Your task to perform on an android device: turn on sleep mode Image 0: 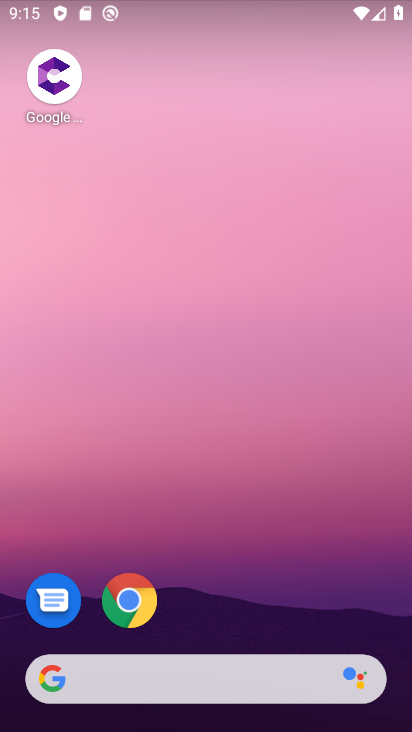
Step 0: drag from (397, 688) to (365, 307)
Your task to perform on an android device: turn on sleep mode Image 1: 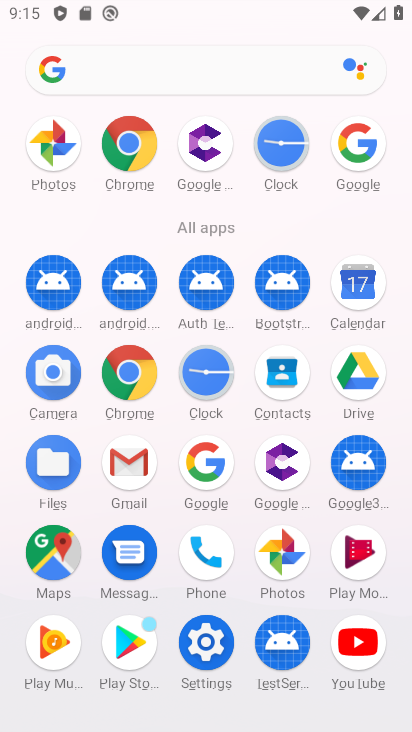
Step 1: click (205, 650)
Your task to perform on an android device: turn on sleep mode Image 2: 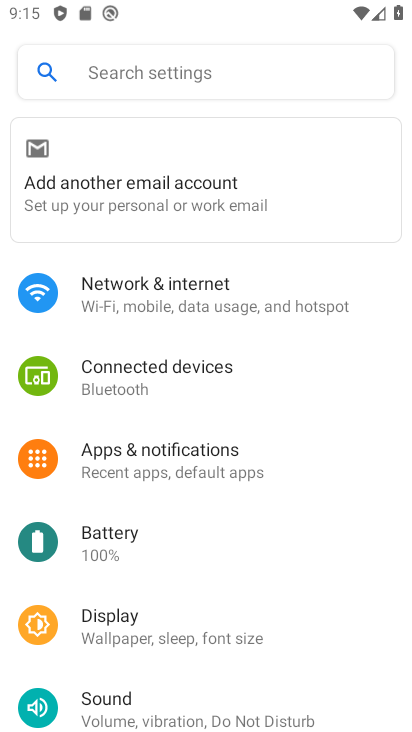
Step 2: drag from (361, 673) to (390, 405)
Your task to perform on an android device: turn on sleep mode Image 3: 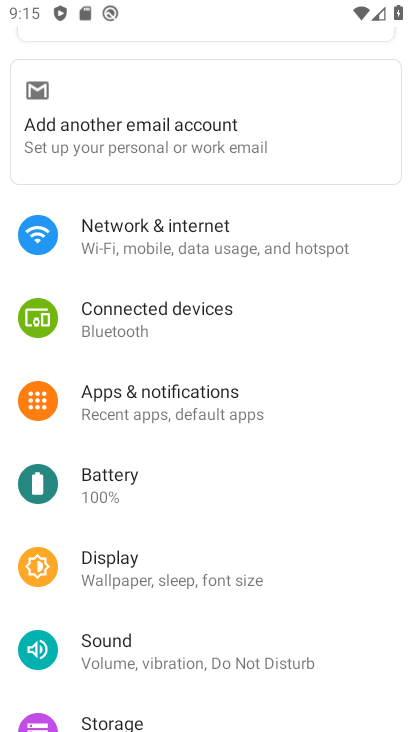
Step 3: click (358, 694)
Your task to perform on an android device: turn on sleep mode Image 4: 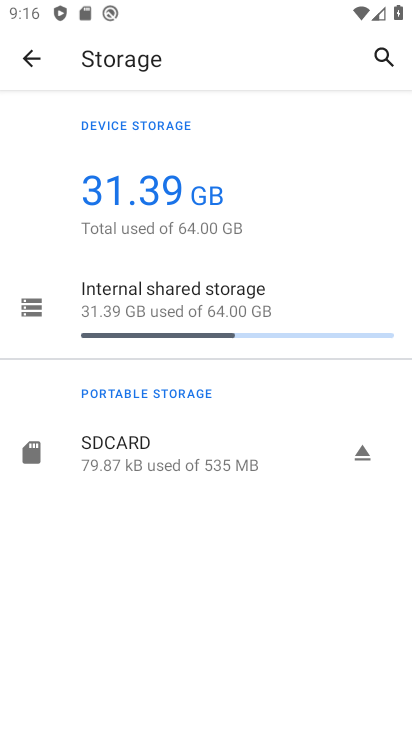
Step 4: click (28, 54)
Your task to perform on an android device: turn on sleep mode Image 5: 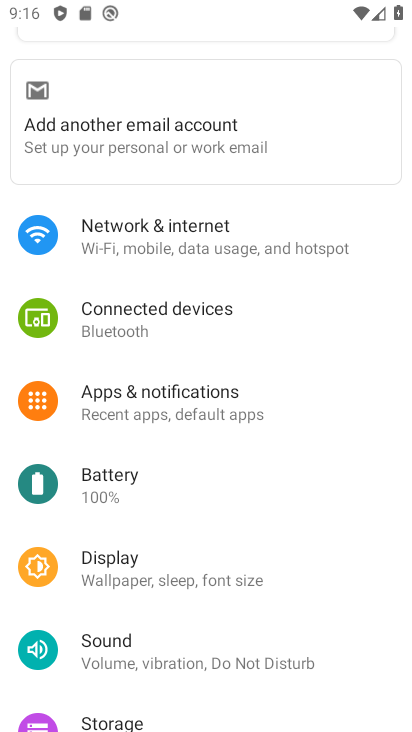
Step 5: drag from (358, 686) to (391, 277)
Your task to perform on an android device: turn on sleep mode Image 6: 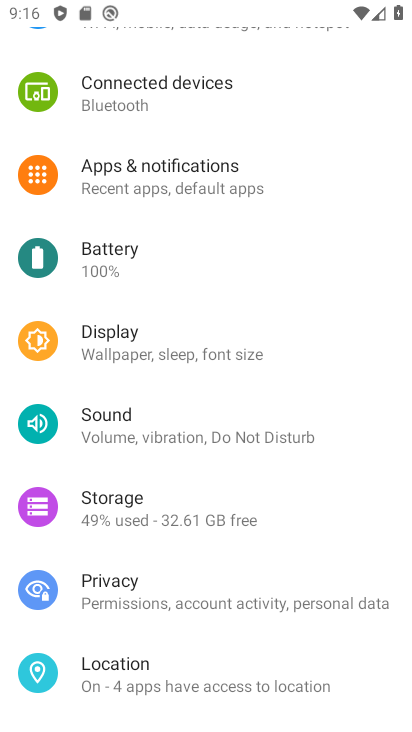
Step 6: drag from (367, 674) to (354, 383)
Your task to perform on an android device: turn on sleep mode Image 7: 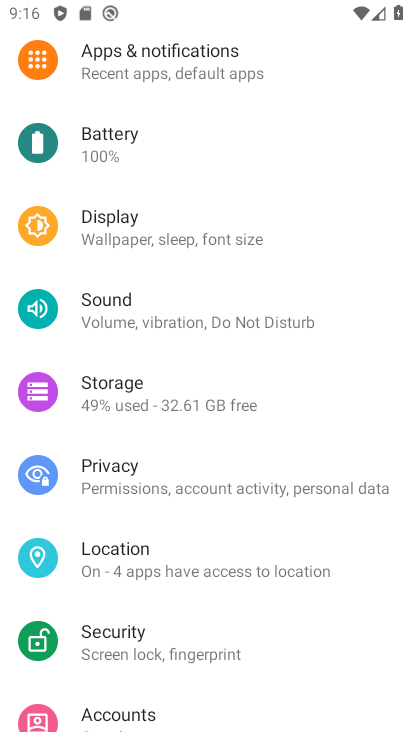
Step 7: click (126, 231)
Your task to perform on an android device: turn on sleep mode Image 8: 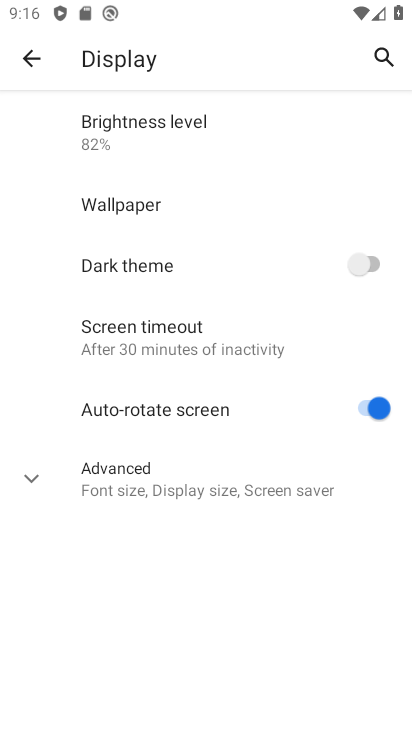
Step 8: click (168, 337)
Your task to perform on an android device: turn on sleep mode Image 9: 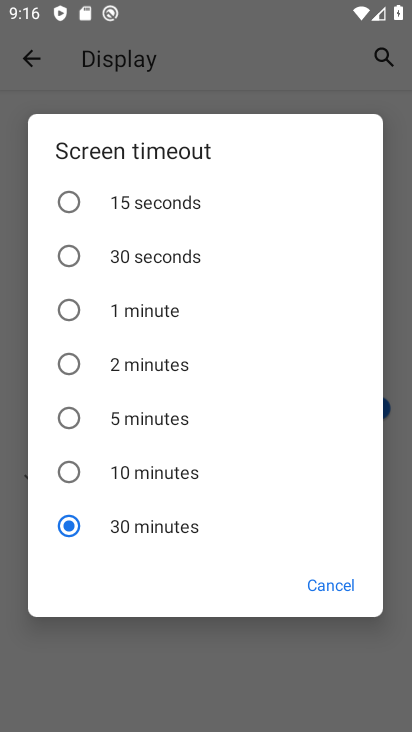
Step 9: task complete